Your task to perform on an android device: Open my contact list Image 0: 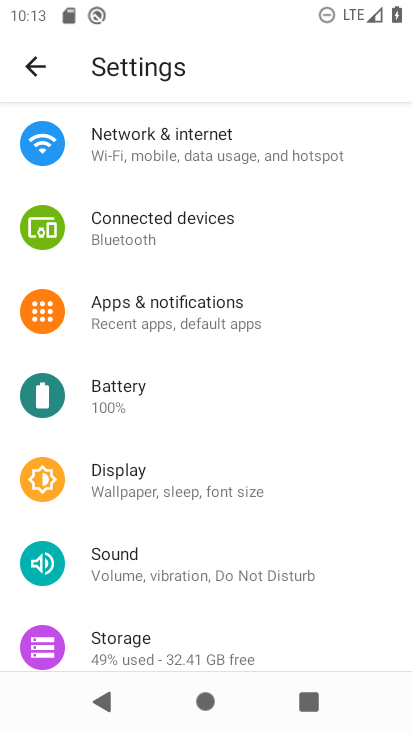
Step 0: press home button
Your task to perform on an android device: Open my contact list Image 1: 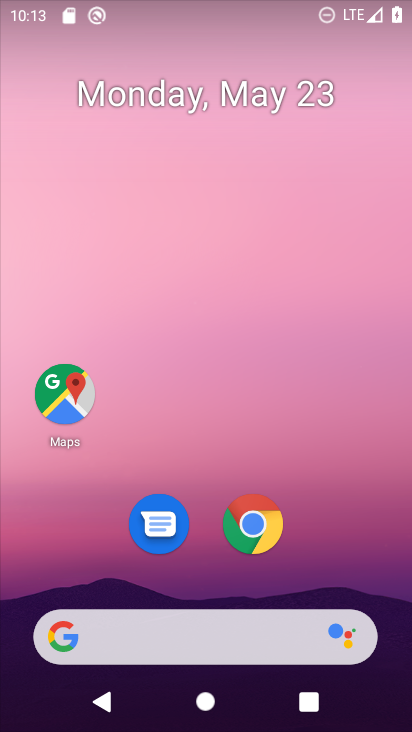
Step 1: drag from (208, 457) to (221, 20)
Your task to perform on an android device: Open my contact list Image 2: 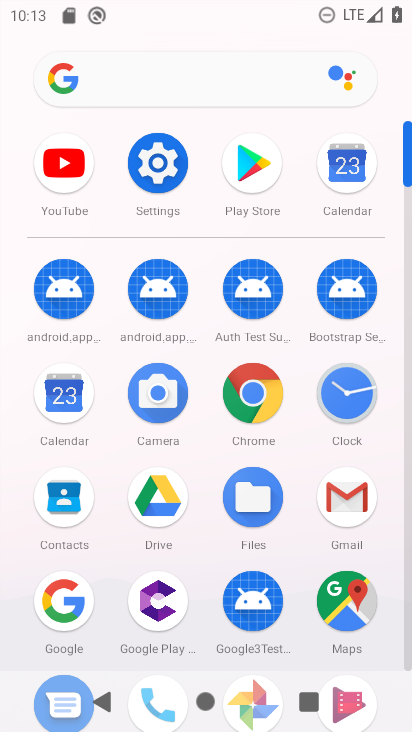
Step 2: click (65, 481)
Your task to perform on an android device: Open my contact list Image 3: 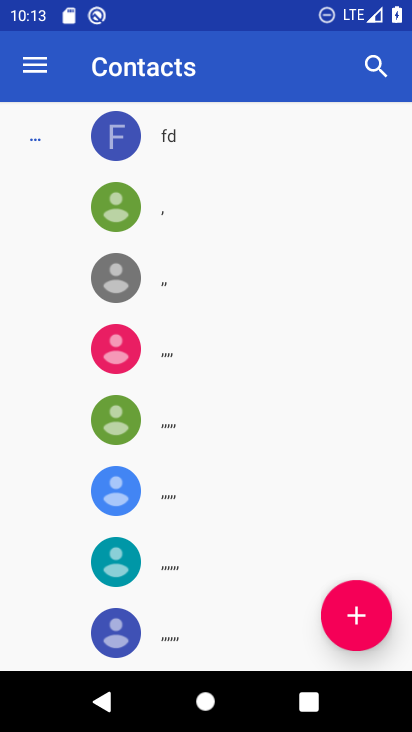
Step 3: task complete